Your task to perform on an android device: Open Chrome and go to settings Image 0: 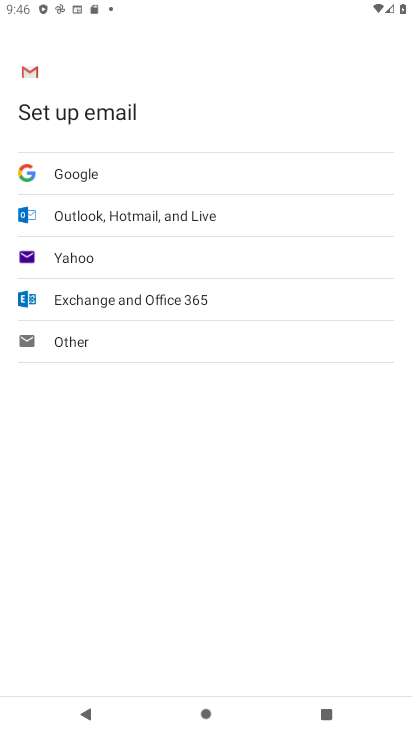
Step 0: press home button
Your task to perform on an android device: Open Chrome and go to settings Image 1: 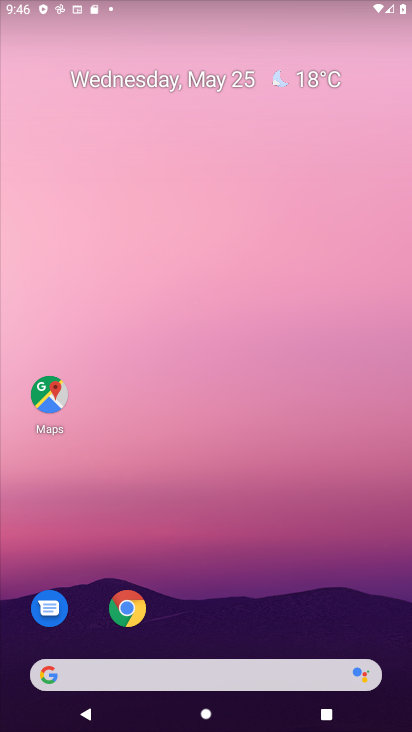
Step 1: click (135, 601)
Your task to perform on an android device: Open Chrome and go to settings Image 2: 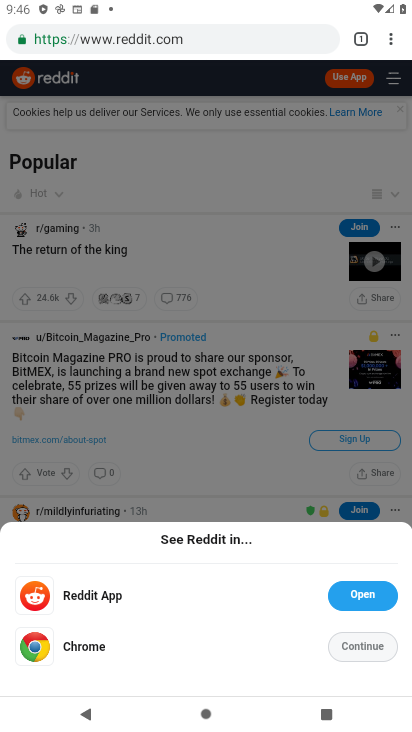
Step 2: click (393, 42)
Your task to perform on an android device: Open Chrome and go to settings Image 3: 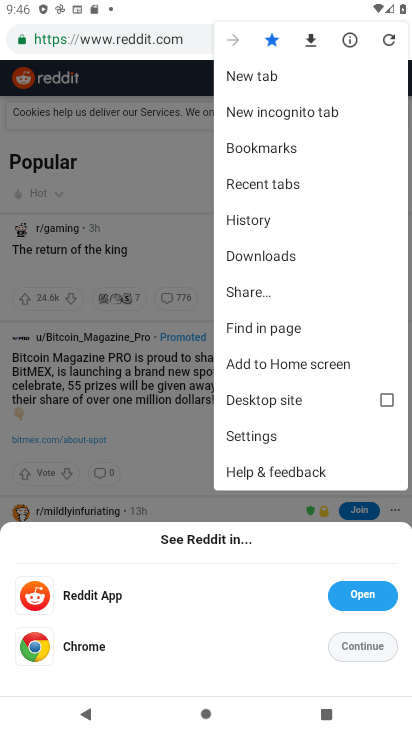
Step 3: click (287, 433)
Your task to perform on an android device: Open Chrome and go to settings Image 4: 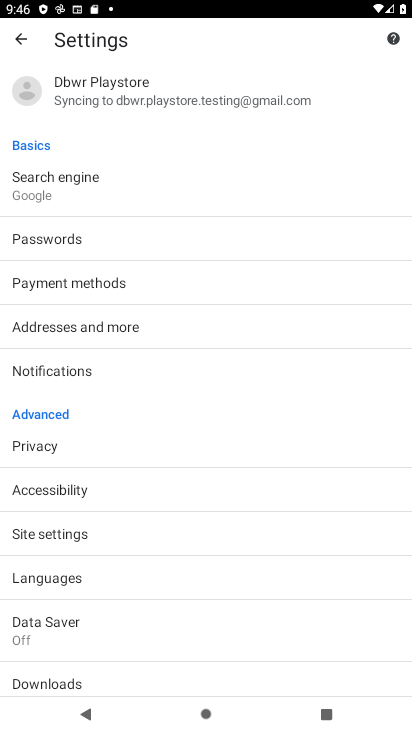
Step 4: task complete